Your task to perform on an android device: Open the stopwatch Image 0: 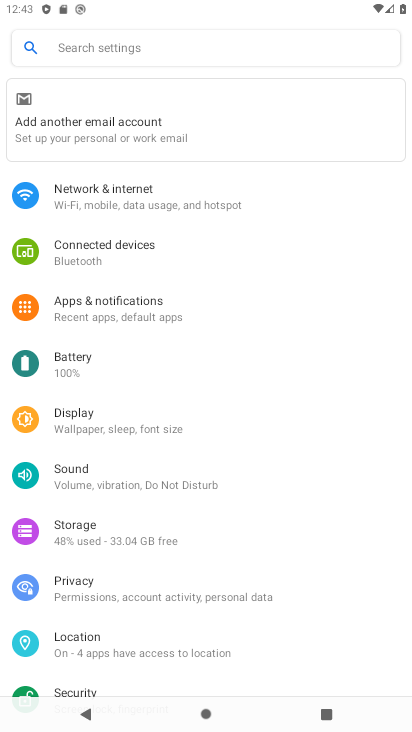
Step 0: press home button
Your task to perform on an android device: Open the stopwatch Image 1: 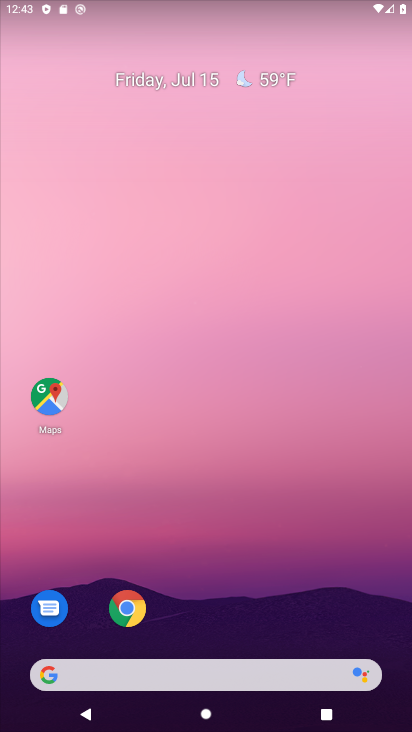
Step 1: drag from (201, 595) to (224, 91)
Your task to perform on an android device: Open the stopwatch Image 2: 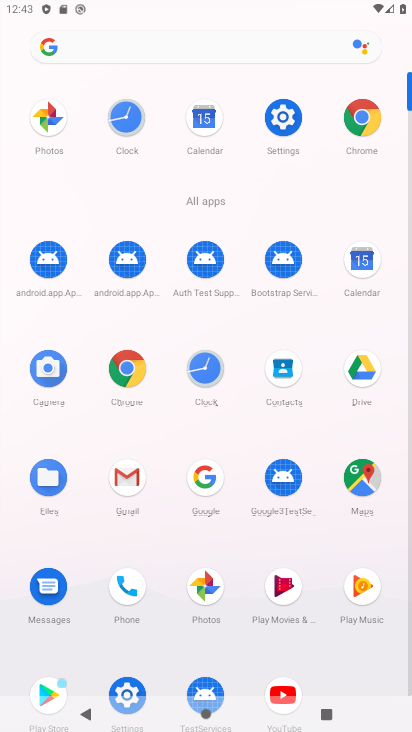
Step 2: click (194, 382)
Your task to perform on an android device: Open the stopwatch Image 3: 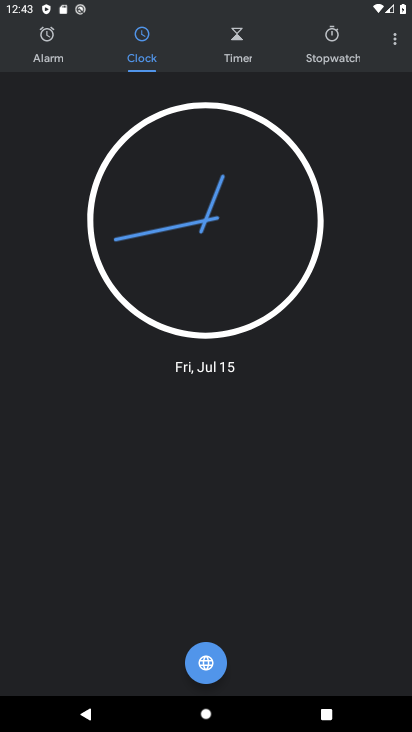
Step 3: click (329, 52)
Your task to perform on an android device: Open the stopwatch Image 4: 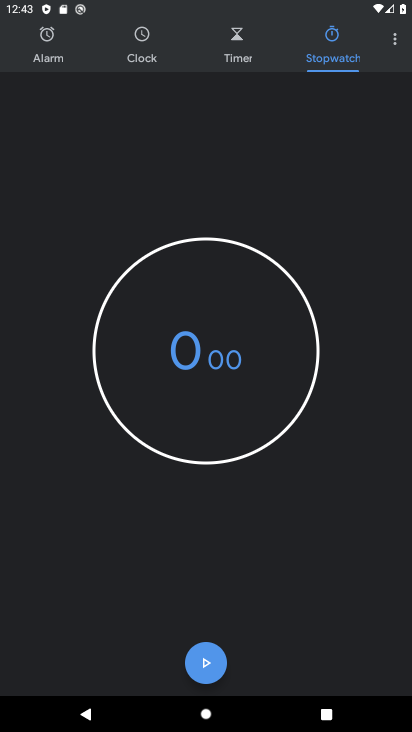
Step 4: task complete